Your task to perform on an android device: Go to notification settings Image 0: 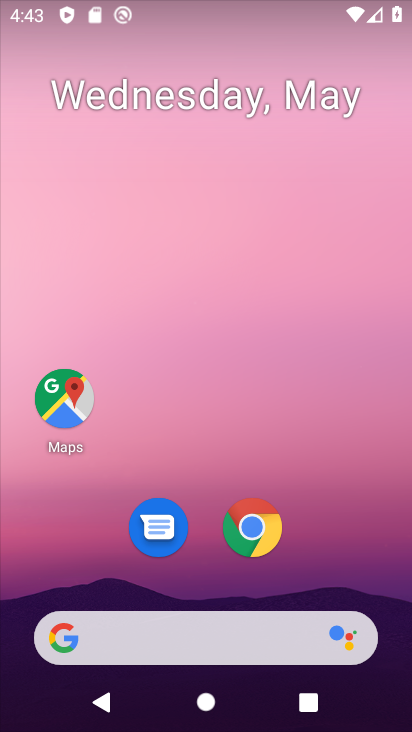
Step 0: drag from (212, 598) to (165, 64)
Your task to perform on an android device: Go to notification settings Image 1: 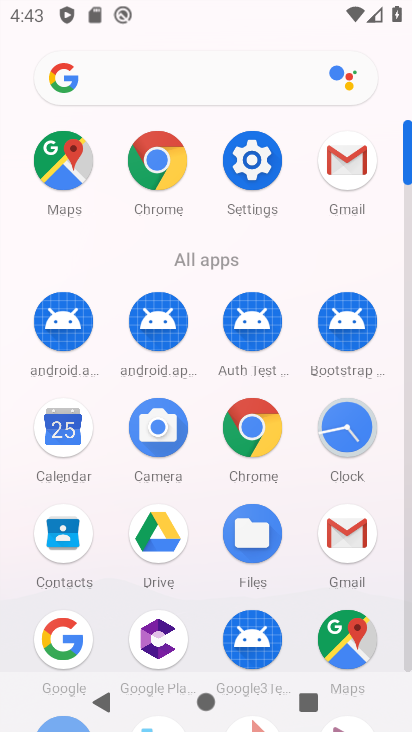
Step 1: click (250, 171)
Your task to perform on an android device: Go to notification settings Image 2: 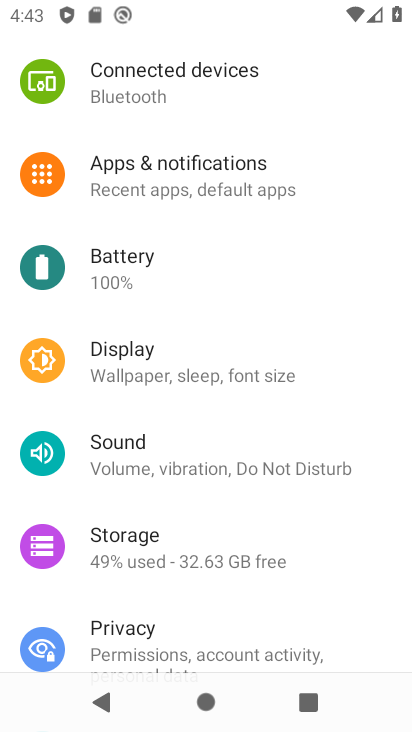
Step 2: click (194, 191)
Your task to perform on an android device: Go to notification settings Image 3: 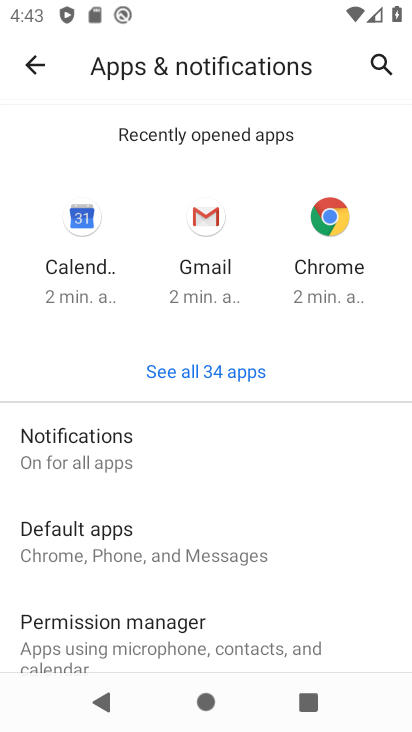
Step 3: click (98, 444)
Your task to perform on an android device: Go to notification settings Image 4: 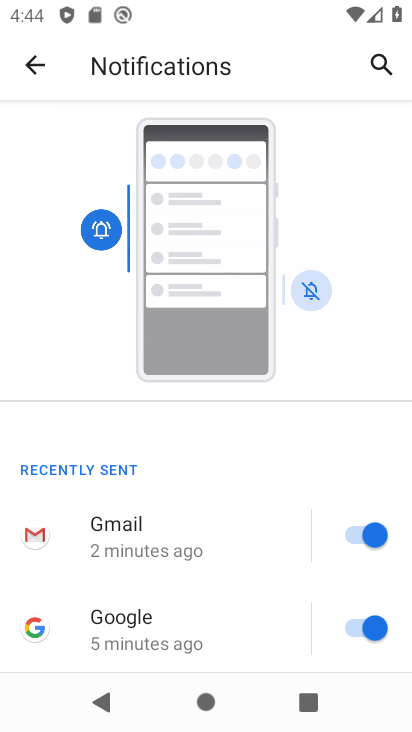
Step 4: task complete